Your task to perform on an android device: turn off smart reply in the gmail app Image 0: 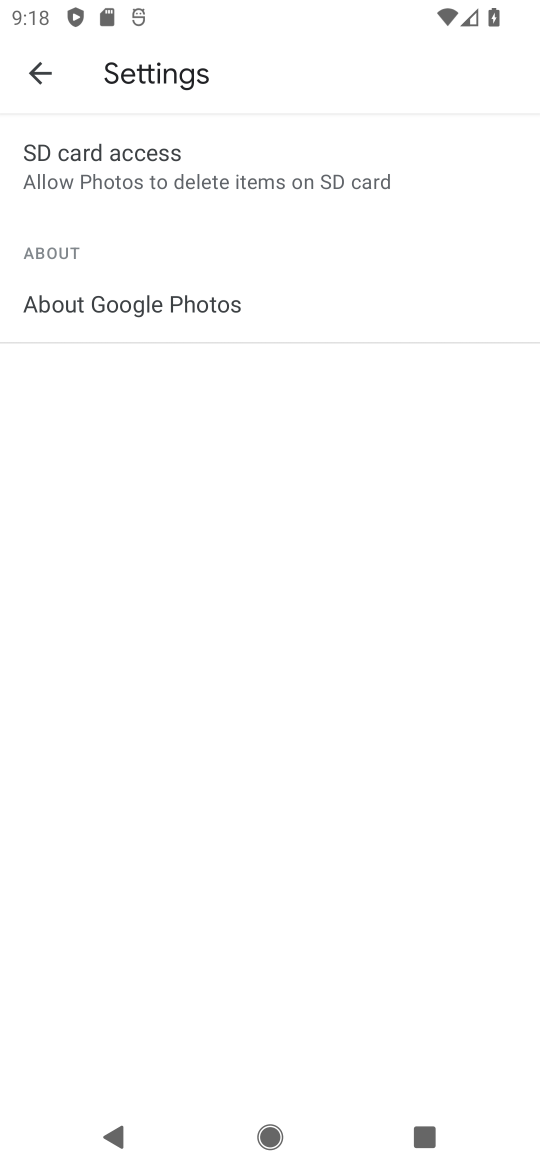
Step 0: press home button
Your task to perform on an android device: turn off smart reply in the gmail app Image 1: 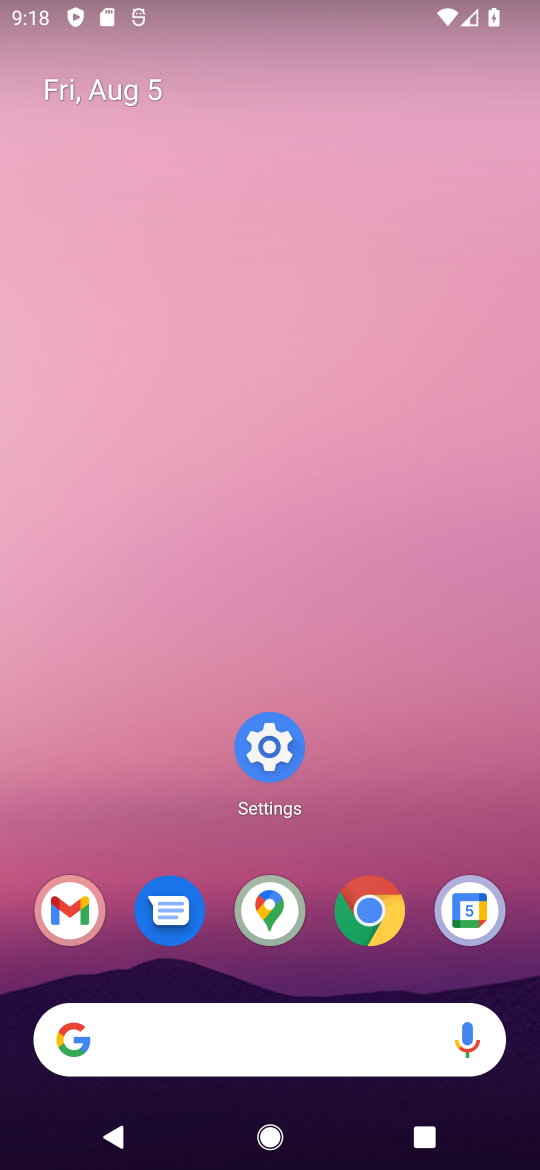
Step 1: click (79, 904)
Your task to perform on an android device: turn off smart reply in the gmail app Image 2: 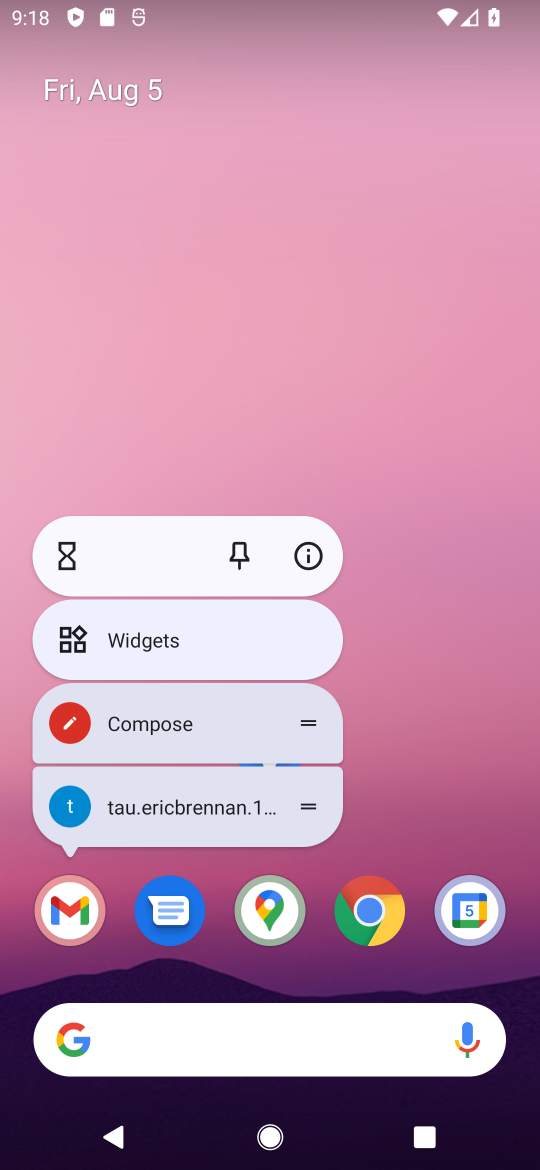
Step 2: click (70, 911)
Your task to perform on an android device: turn off smart reply in the gmail app Image 3: 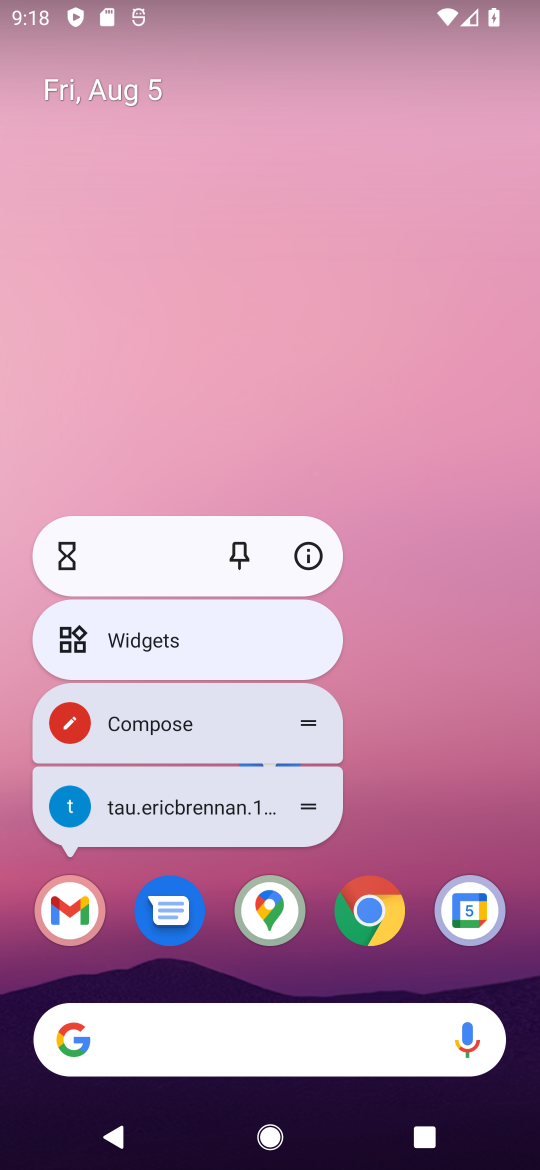
Step 3: click (69, 917)
Your task to perform on an android device: turn off smart reply in the gmail app Image 4: 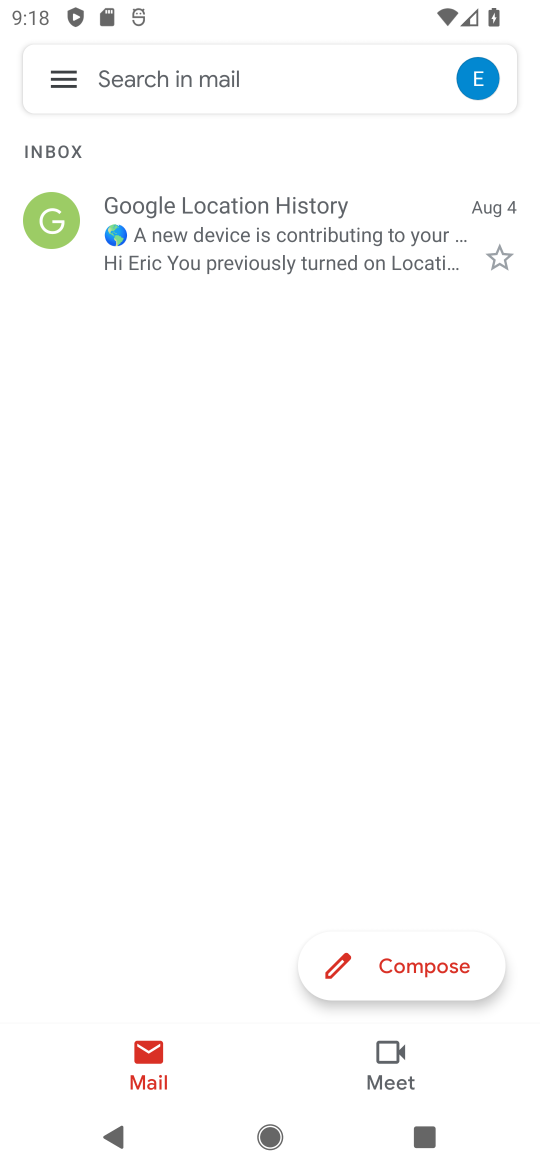
Step 4: click (70, 69)
Your task to perform on an android device: turn off smart reply in the gmail app Image 5: 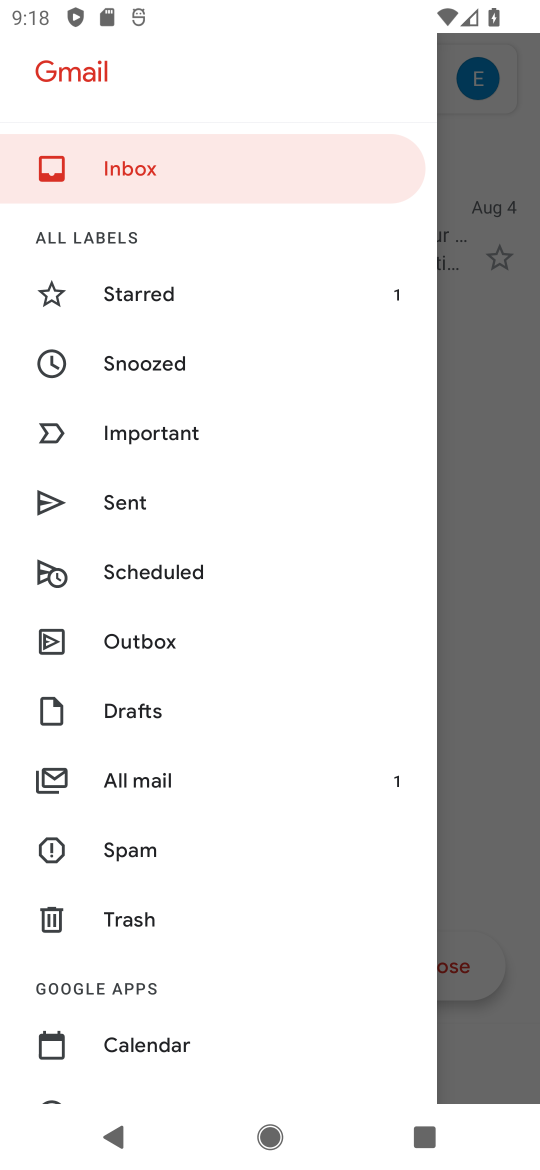
Step 5: drag from (189, 1032) to (279, 145)
Your task to perform on an android device: turn off smart reply in the gmail app Image 6: 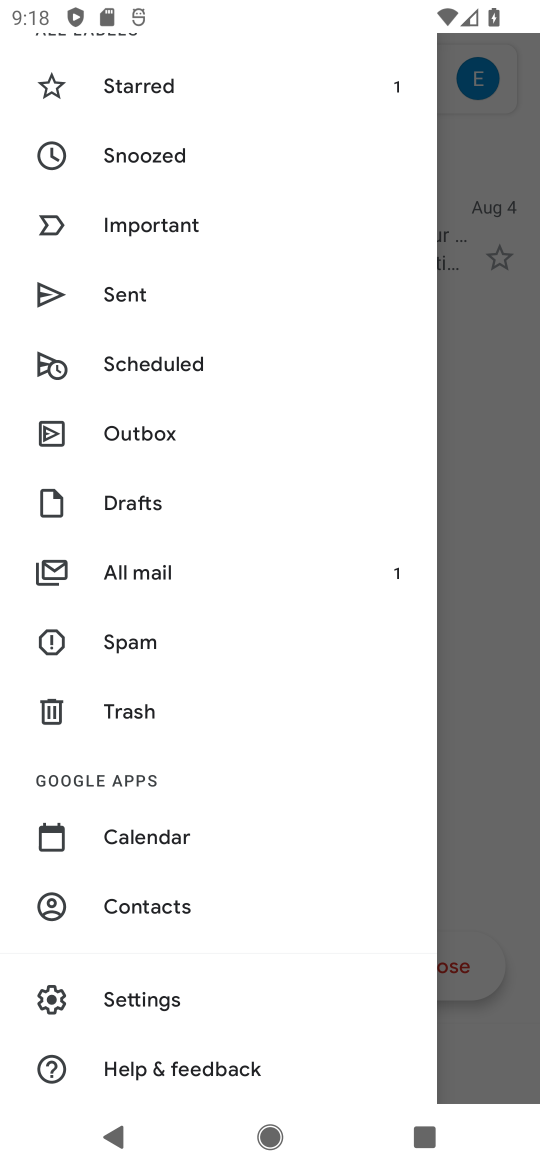
Step 6: click (160, 995)
Your task to perform on an android device: turn off smart reply in the gmail app Image 7: 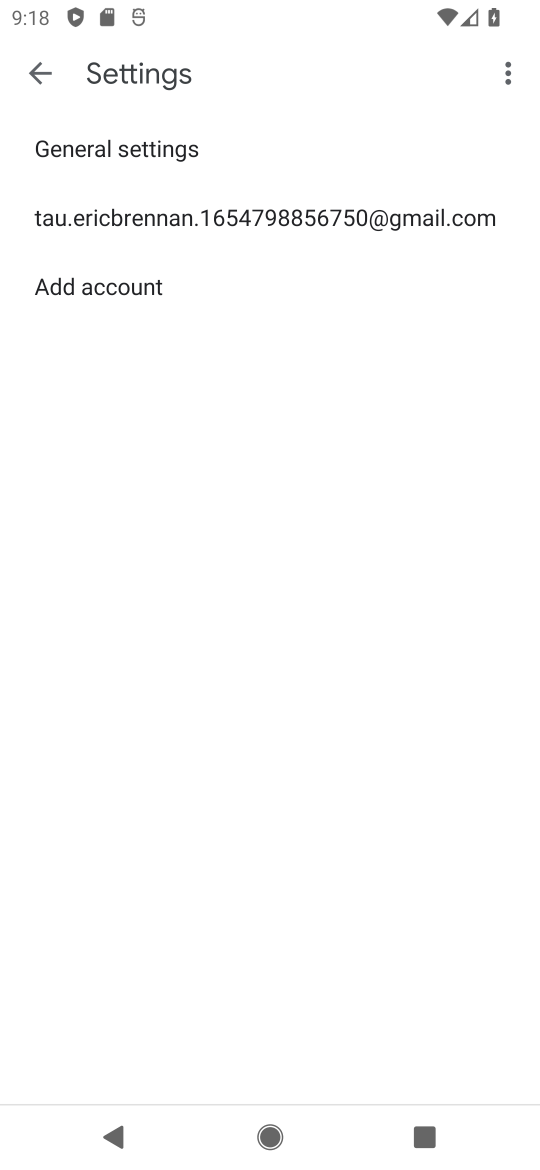
Step 7: click (335, 210)
Your task to perform on an android device: turn off smart reply in the gmail app Image 8: 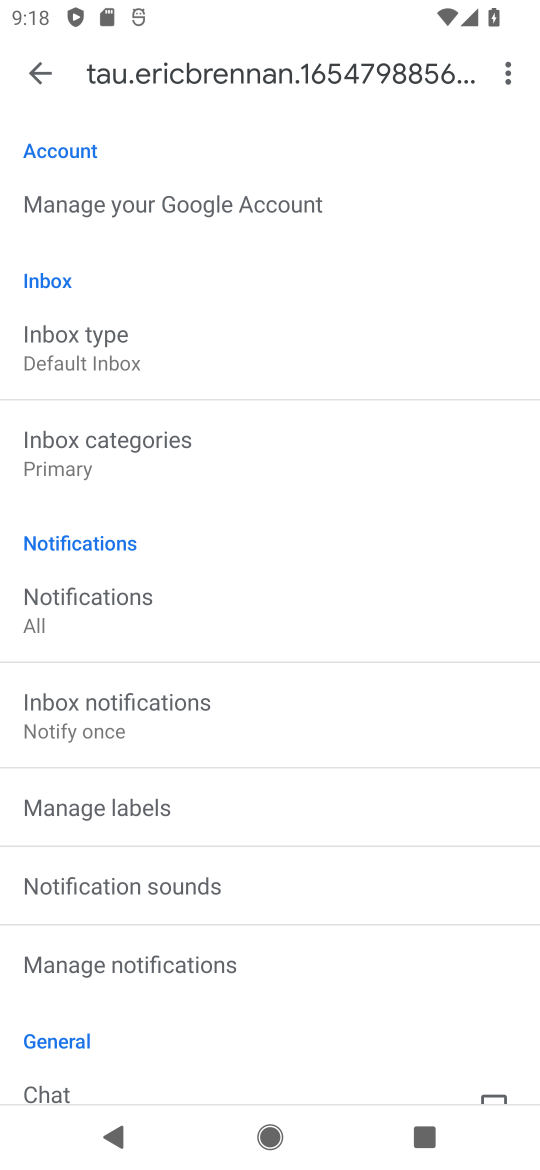
Step 8: task complete